Your task to perform on an android device: change the upload size in google photos Image 0: 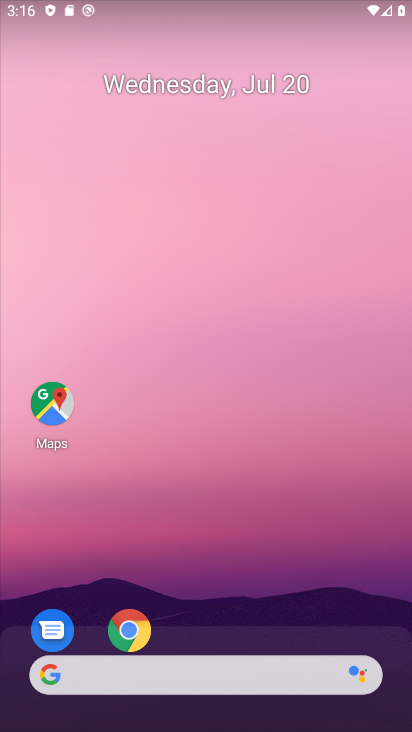
Step 0: press home button
Your task to perform on an android device: change the upload size in google photos Image 1: 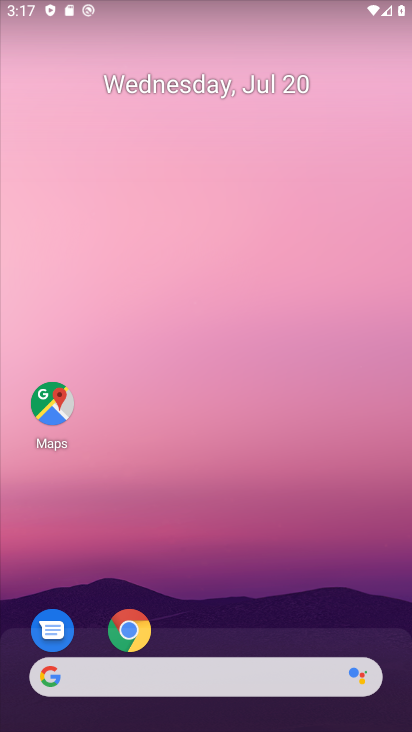
Step 1: drag from (247, 639) to (259, 79)
Your task to perform on an android device: change the upload size in google photos Image 2: 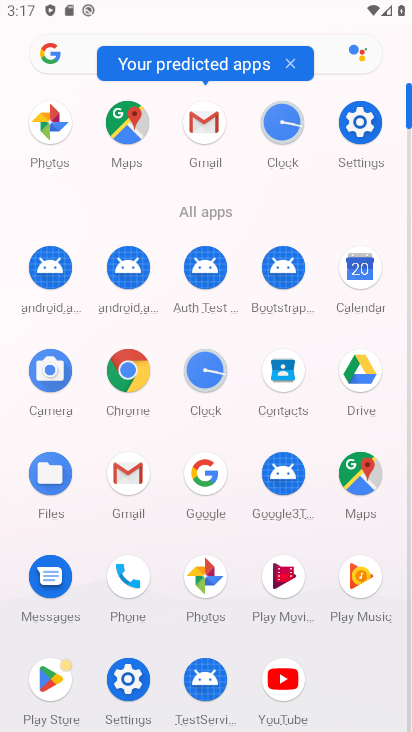
Step 2: click (204, 560)
Your task to perform on an android device: change the upload size in google photos Image 3: 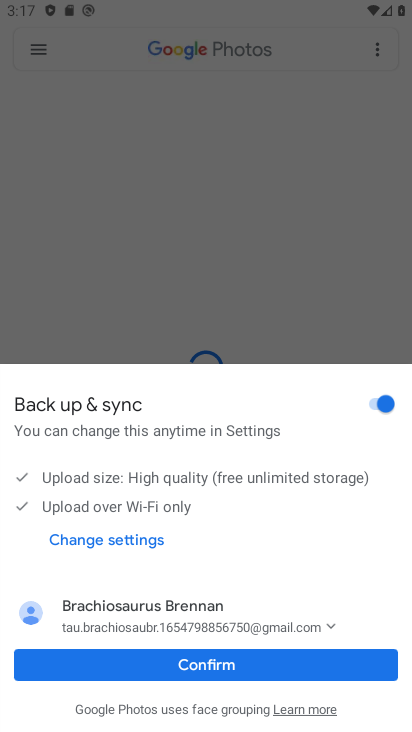
Step 3: click (213, 660)
Your task to perform on an android device: change the upload size in google photos Image 4: 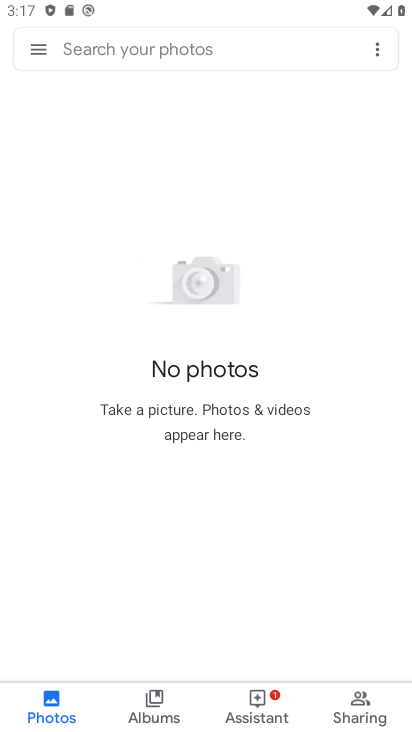
Step 4: click (32, 45)
Your task to perform on an android device: change the upload size in google photos Image 5: 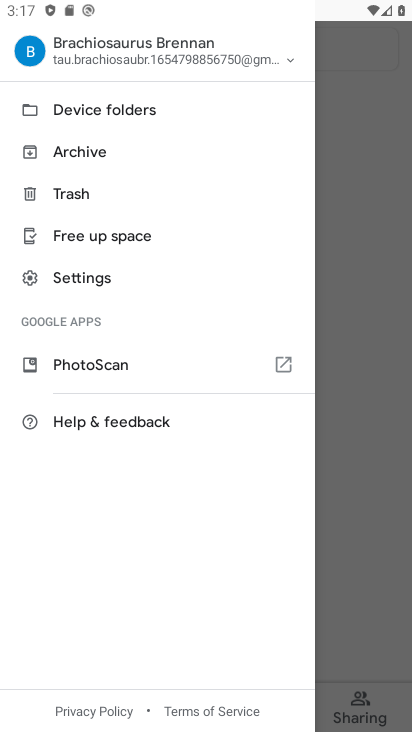
Step 5: click (87, 271)
Your task to perform on an android device: change the upload size in google photos Image 6: 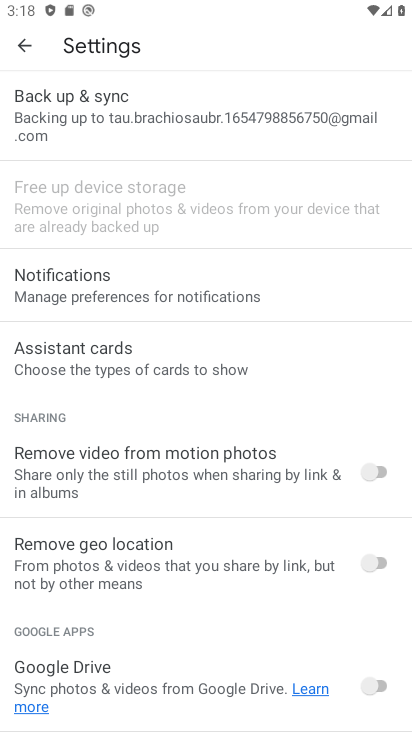
Step 6: click (97, 124)
Your task to perform on an android device: change the upload size in google photos Image 7: 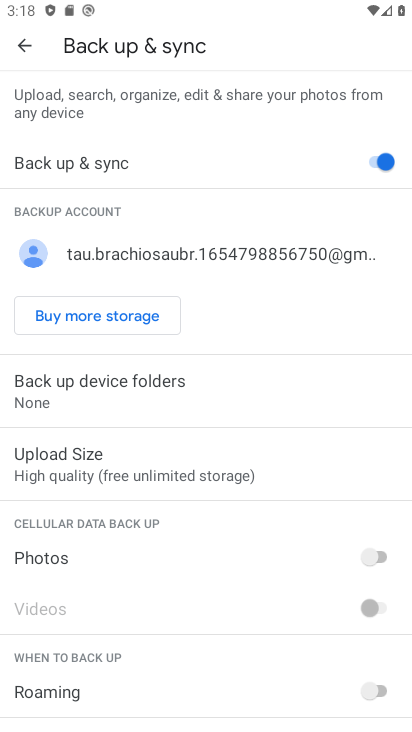
Step 7: click (104, 453)
Your task to perform on an android device: change the upload size in google photos Image 8: 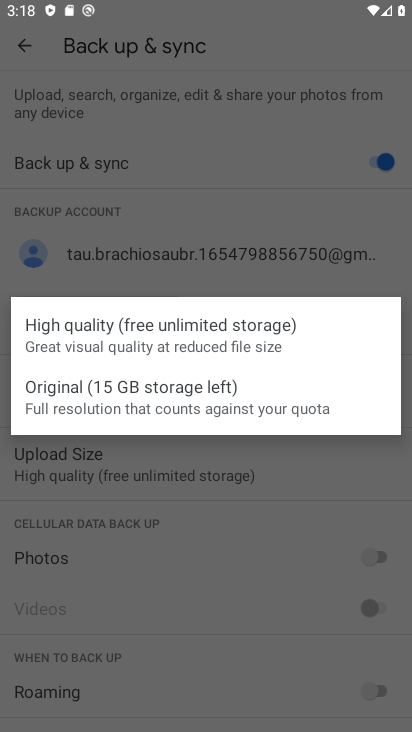
Step 8: click (147, 393)
Your task to perform on an android device: change the upload size in google photos Image 9: 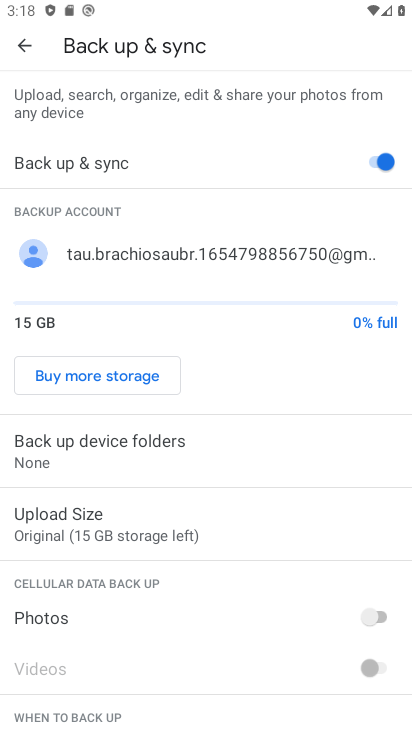
Step 9: task complete